Your task to perform on an android device: turn on translation in the chrome app Image 0: 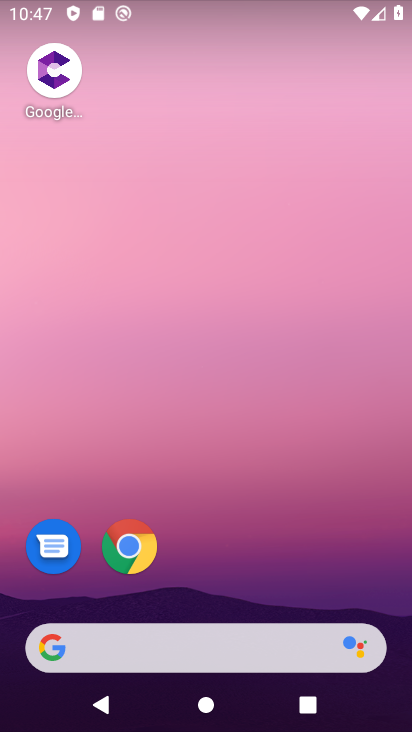
Step 0: drag from (330, 553) to (313, 245)
Your task to perform on an android device: turn on translation in the chrome app Image 1: 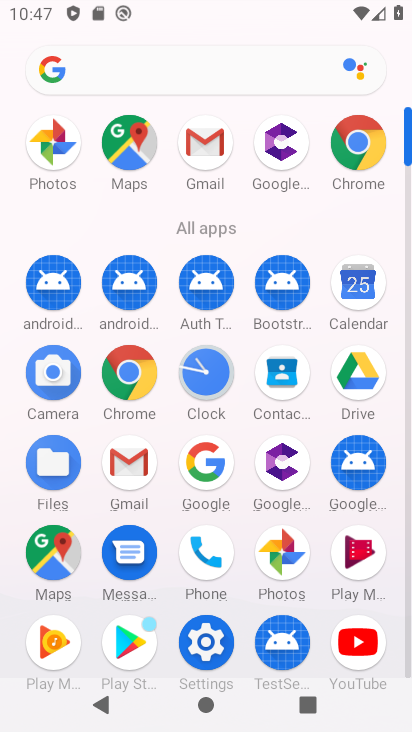
Step 1: click (125, 358)
Your task to perform on an android device: turn on translation in the chrome app Image 2: 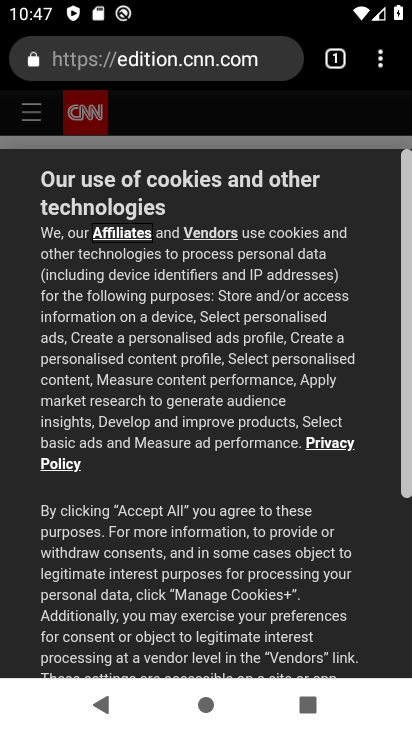
Step 2: drag from (372, 74) to (224, 574)
Your task to perform on an android device: turn on translation in the chrome app Image 3: 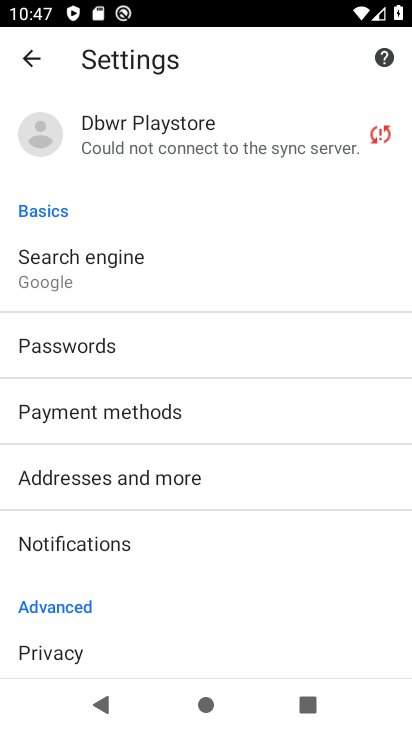
Step 3: drag from (223, 587) to (261, 283)
Your task to perform on an android device: turn on translation in the chrome app Image 4: 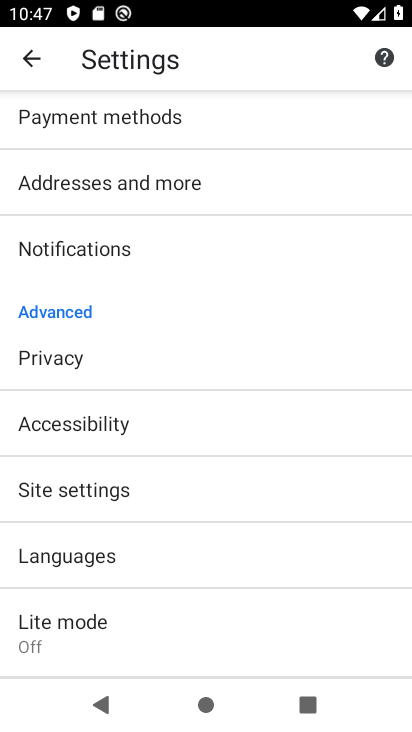
Step 4: drag from (213, 507) to (236, 303)
Your task to perform on an android device: turn on translation in the chrome app Image 5: 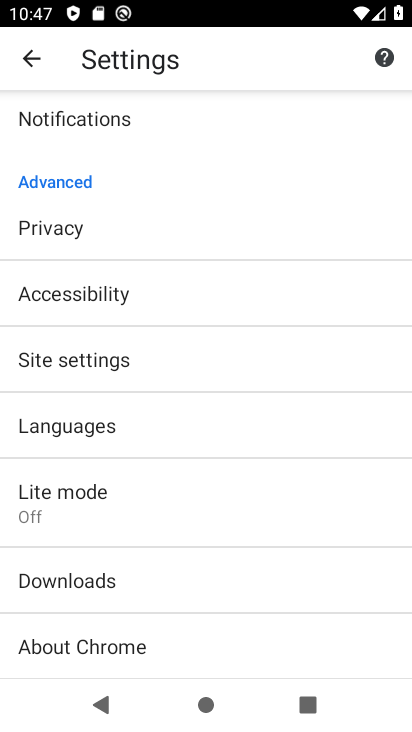
Step 5: click (149, 438)
Your task to perform on an android device: turn on translation in the chrome app Image 6: 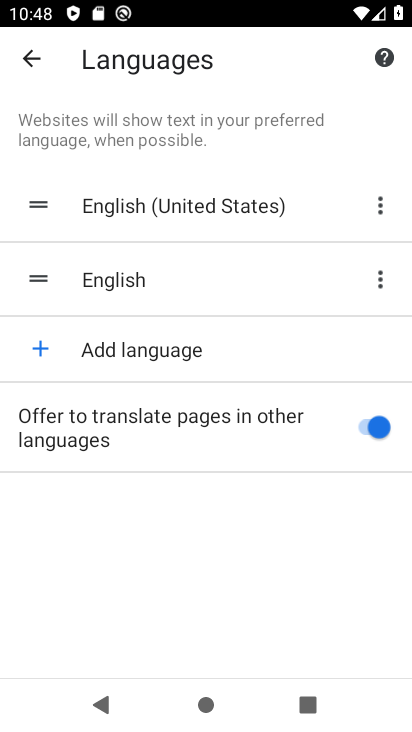
Step 6: task complete